Your task to perform on an android device: Open Youtube and go to the subscriptions tab Image 0: 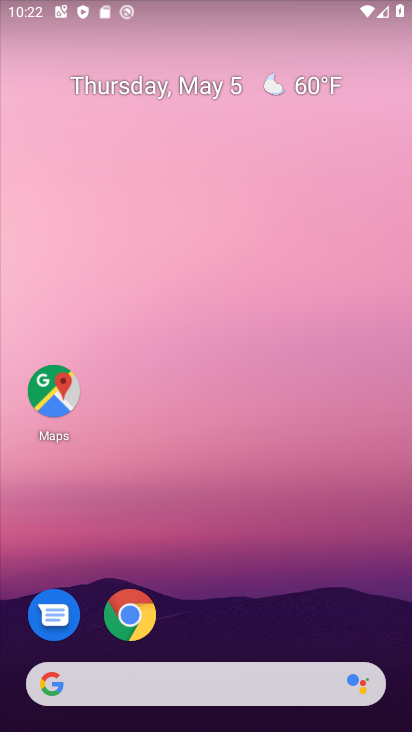
Step 0: drag from (207, 550) to (286, 82)
Your task to perform on an android device: Open Youtube and go to the subscriptions tab Image 1: 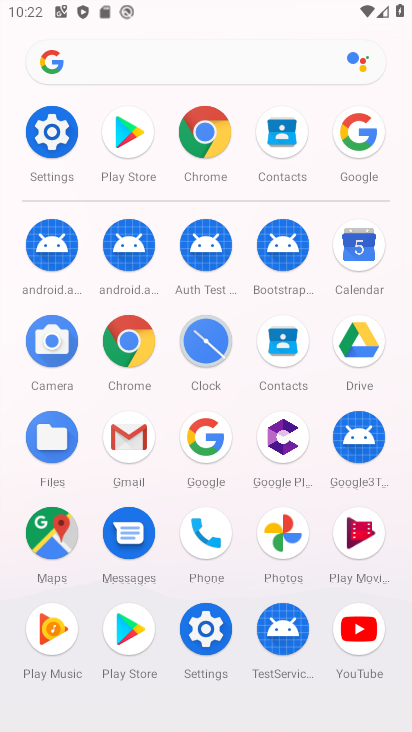
Step 1: click (358, 626)
Your task to perform on an android device: Open Youtube and go to the subscriptions tab Image 2: 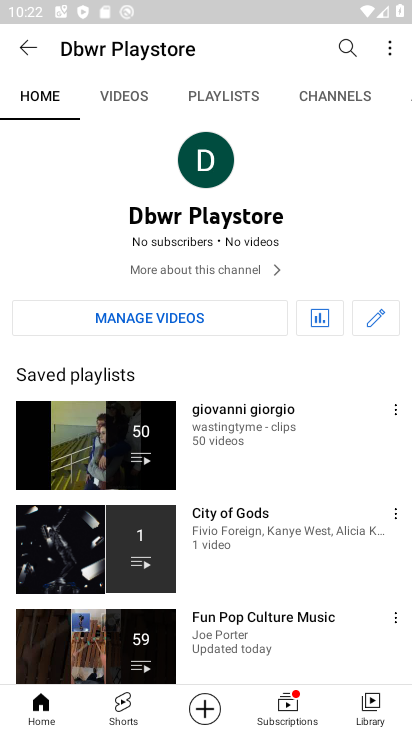
Step 2: press back button
Your task to perform on an android device: Open Youtube and go to the subscriptions tab Image 3: 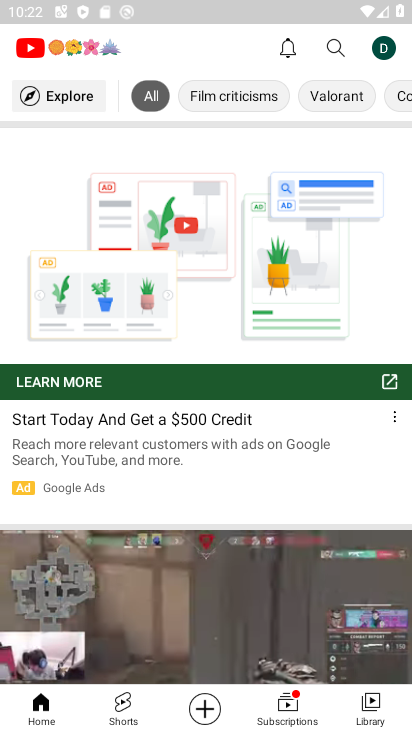
Step 3: click (275, 707)
Your task to perform on an android device: Open Youtube and go to the subscriptions tab Image 4: 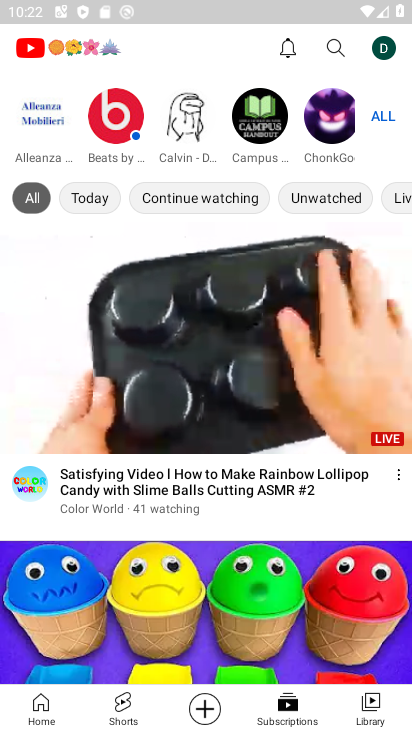
Step 4: task complete